Your task to perform on an android device: What is the recent news? Image 0: 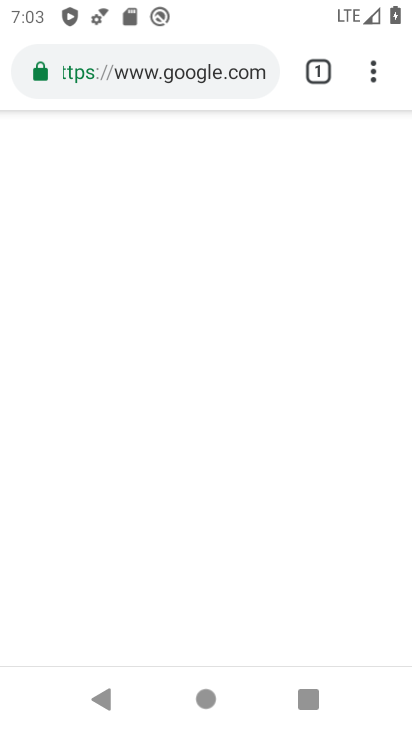
Step 0: press home button
Your task to perform on an android device: What is the recent news? Image 1: 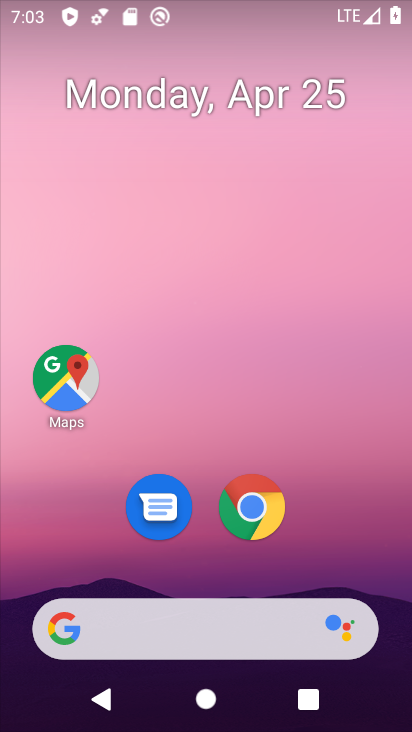
Step 1: drag from (319, 471) to (314, 158)
Your task to perform on an android device: What is the recent news? Image 2: 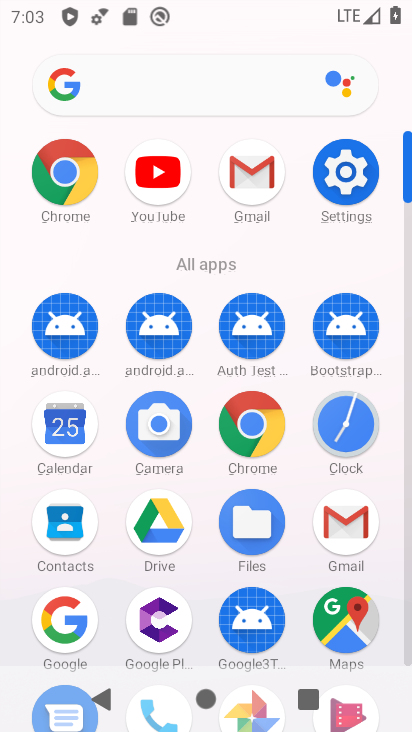
Step 2: click (263, 416)
Your task to perform on an android device: What is the recent news? Image 3: 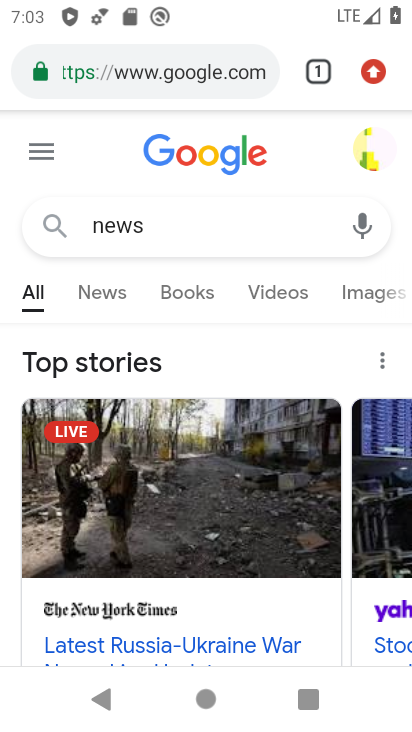
Step 3: click (195, 70)
Your task to perform on an android device: What is the recent news? Image 4: 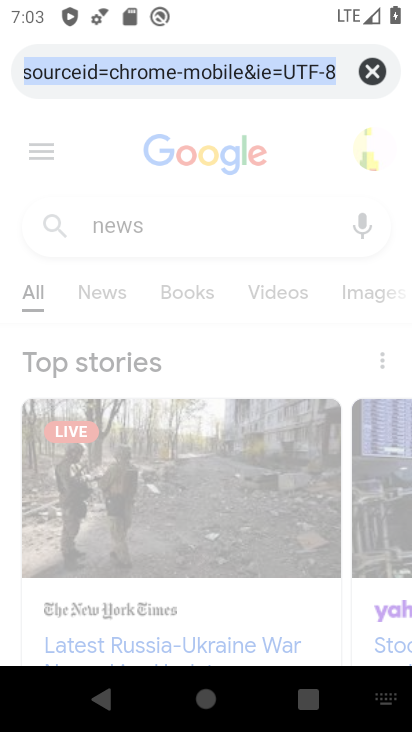
Step 4: click (195, 70)
Your task to perform on an android device: What is the recent news? Image 5: 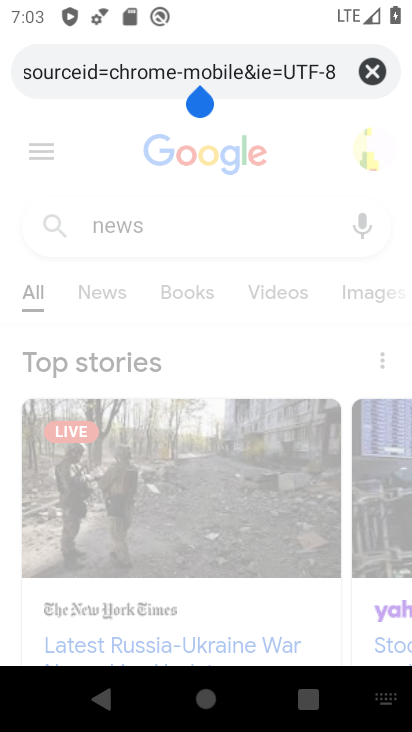
Step 5: click (373, 68)
Your task to perform on an android device: What is the recent news? Image 6: 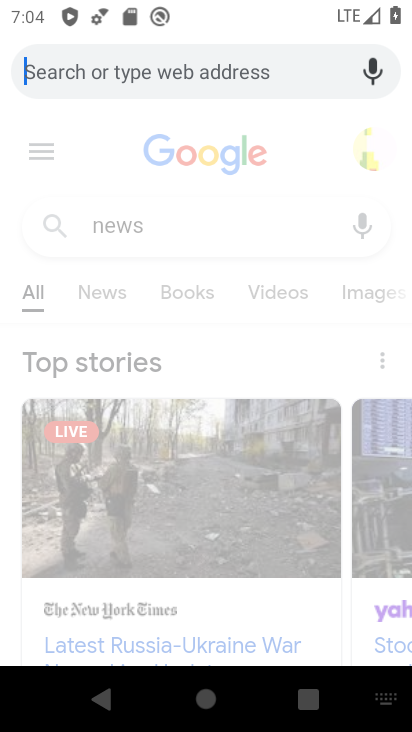
Step 6: type "What is the recent news?"
Your task to perform on an android device: What is the recent news? Image 7: 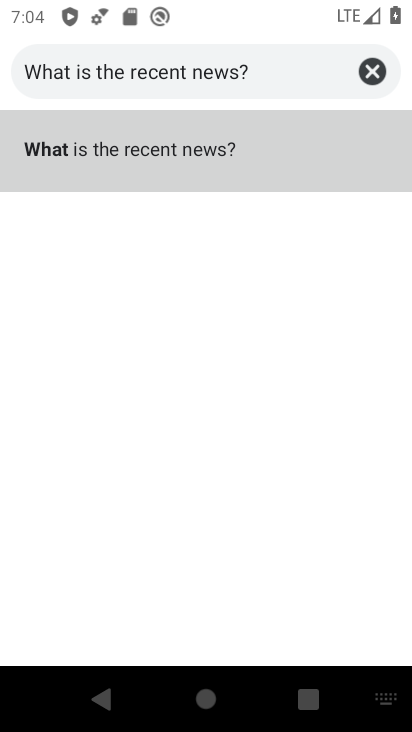
Step 7: click (117, 137)
Your task to perform on an android device: What is the recent news? Image 8: 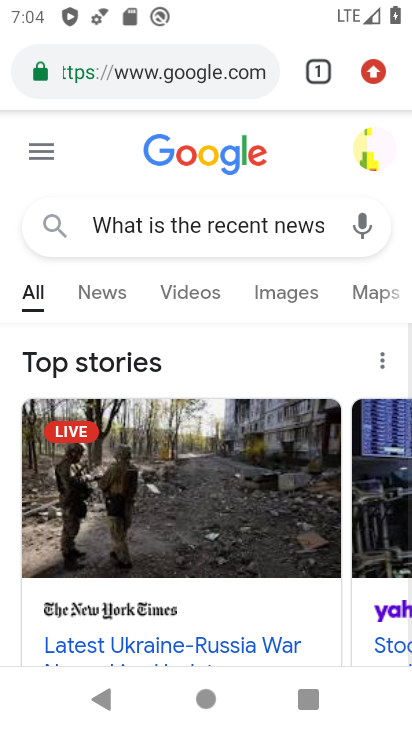
Step 8: task complete